Your task to perform on an android device: turn on the 24-hour format for clock Image 0: 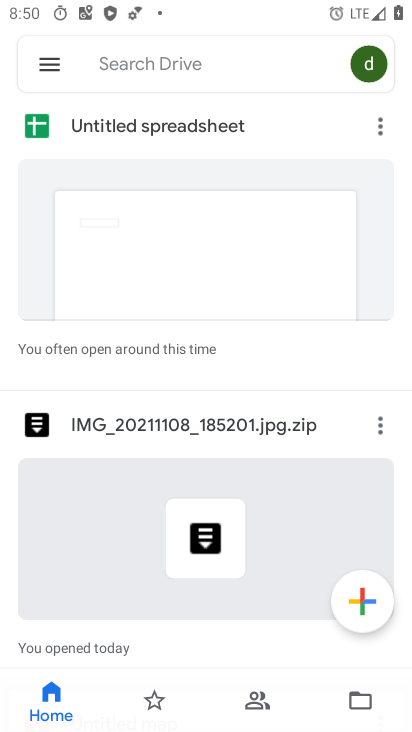
Step 0: press home button
Your task to perform on an android device: turn on the 24-hour format for clock Image 1: 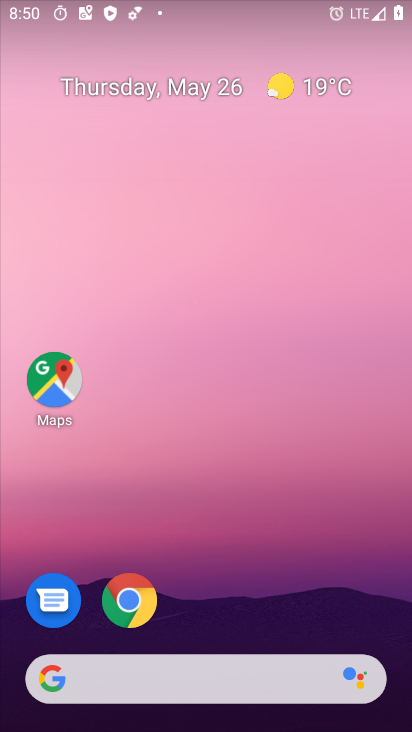
Step 1: drag from (247, 631) to (221, 212)
Your task to perform on an android device: turn on the 24-hour format for clock Image 2: 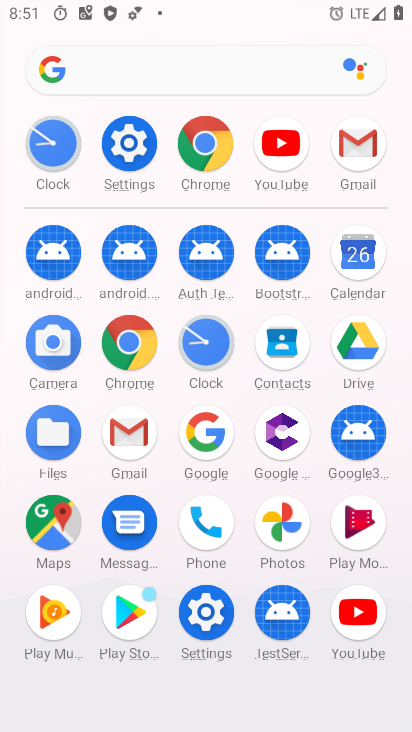
Step 2: click (144, 141)
Your task to perform on an android device: turn on the 24-hour format for clock Image 3: 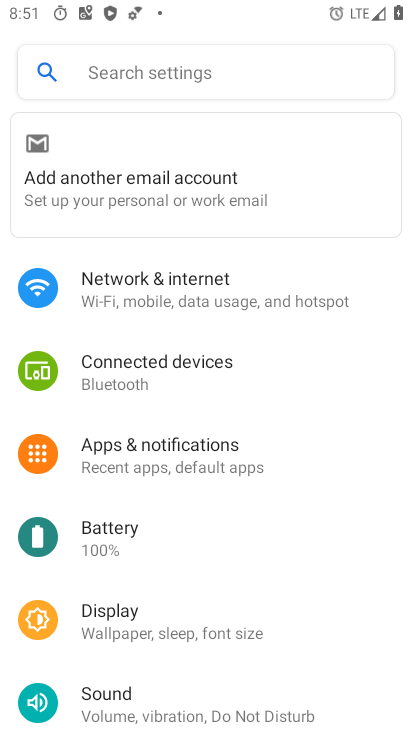
Step 3: drag from (341, 579) to (309, 183)
Your task to perform on an android device: turn on the 24-hour format for clock Image 4: 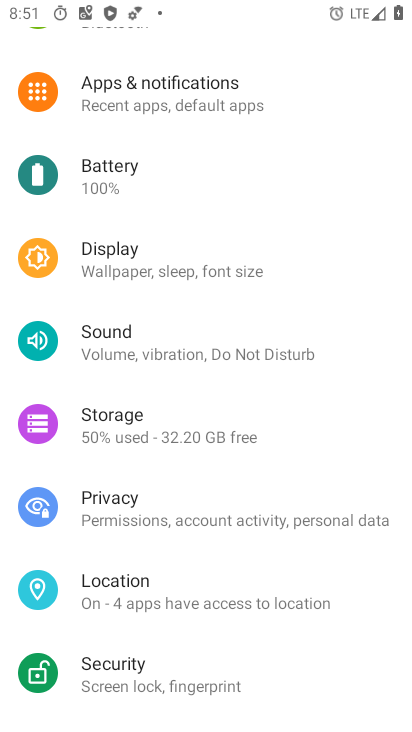
Step 4: drag from (307, 554) to (292, 317)
Your task to perform on an android device: turn on the 24-hour format for clock Image 5: 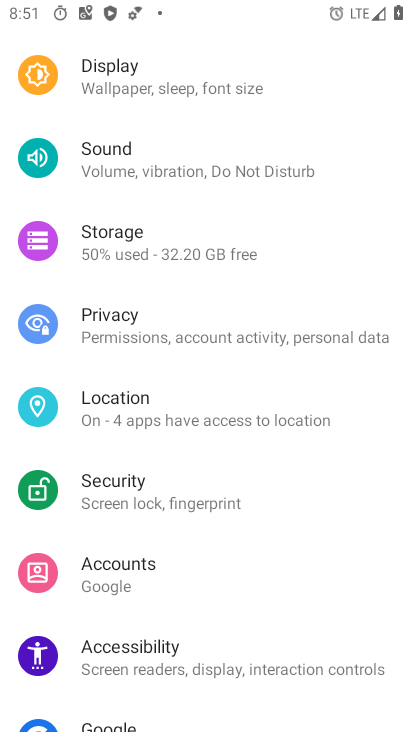
Step 5: drag from (302, 559) to (282, 265)
Your task to perform on an android device: turn on the 24-hour format for clock Image 6: 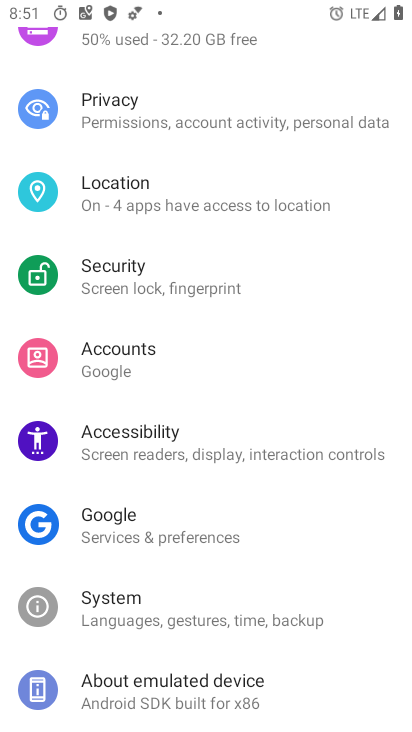
Step 6: click (121, 613)
Your task to perform on an android device: turn on the 24-hour format for clock Image 7: 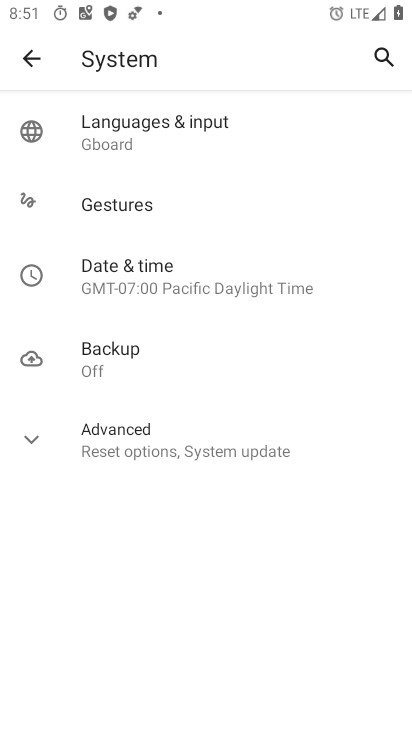
Step 7: click (137, 277)
Your task to perform on an android device: turn on the 24-hour format for clock Image 8: 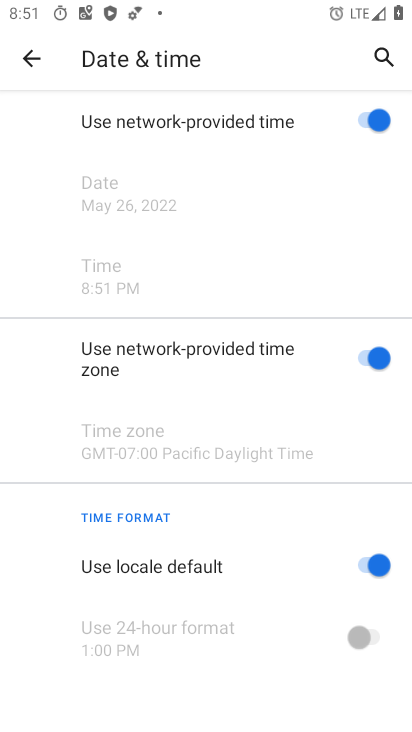
Step 8: click (361, 638)
Your task to perform on an android device: turn on the 24-hour format for clock Image 9: 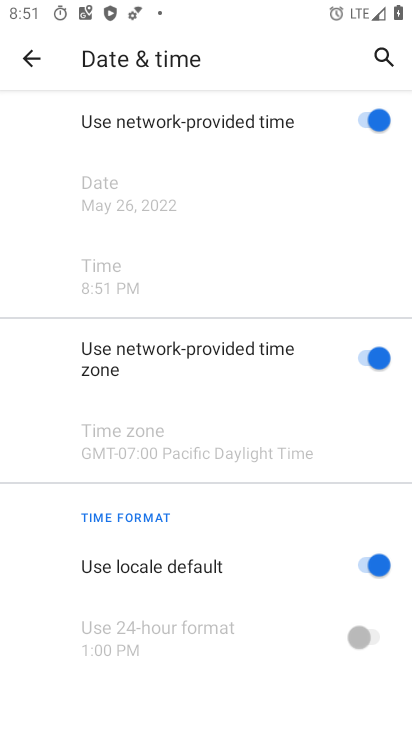
Step 9: click (387, 569)
Your task to perform on an android device: turn on the 24-hour format for clock Image 10: 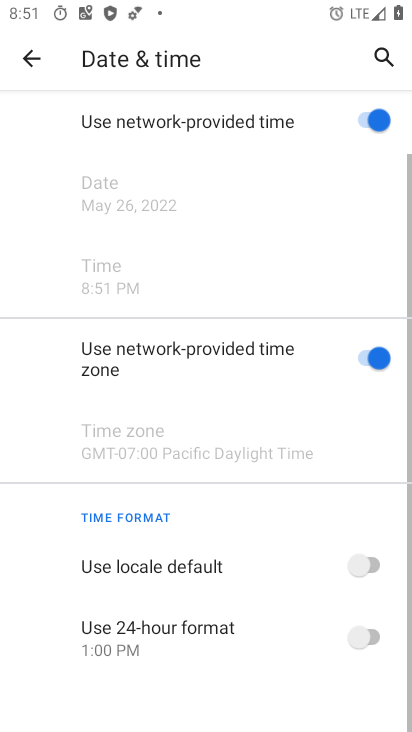
Step 10: click (362, 639)
Your task to perform on an android device: turn on the 24-hour format for clock Image 11: 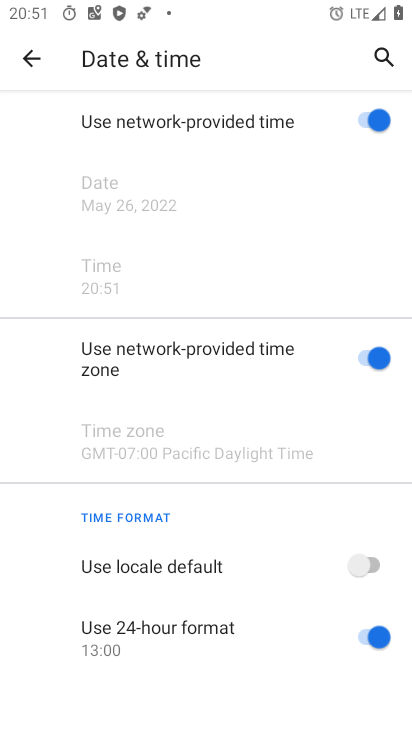
Step 11: click (377, 627)
Your task to perform on an android device: turn on the 24-hour format for clock Image 12: 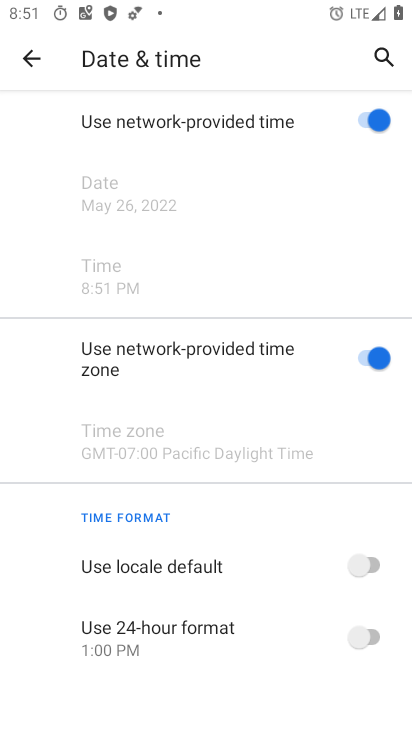
Step 12: click (369, 634)
Your task to perform on an android device: turn on the 24-hour format for clock Image 13: 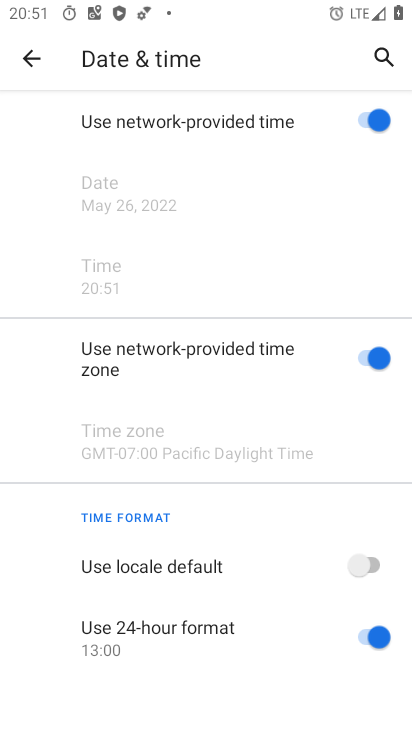
Step 13: task complete